Your task to perform on an android device: Open Youtube and go to "Your channel" Image 0: 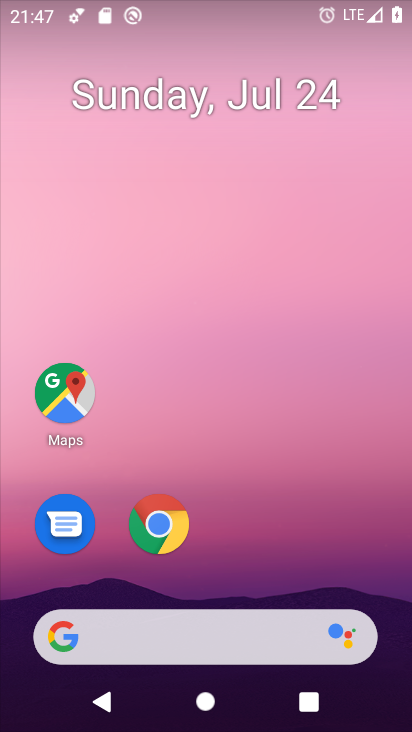
Step 0: drag from (289, 558) to (311, 48)
Your task to perform on an android device: Open Youtube and go to "Your channel" Image 1: 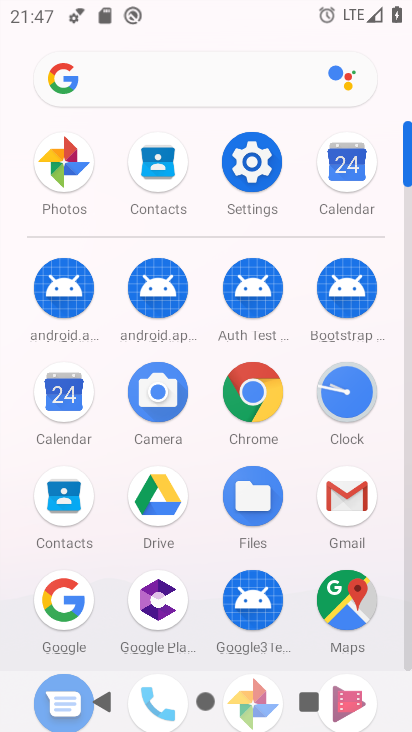
Step 1: drag from (216, 407) to (218, 33)
Your task to perform on an android device: Open Youtube and go to "Your channel" Image 2: 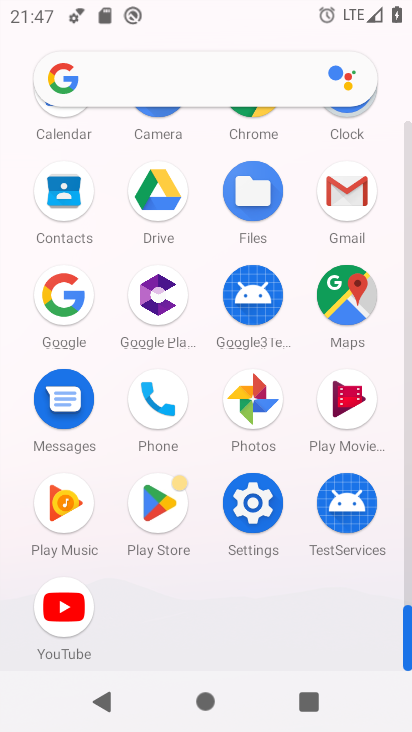
Step 2: click (58, 612)
Your task to perform on an android device: Open Youtube and go to "Your channel" Image 3: 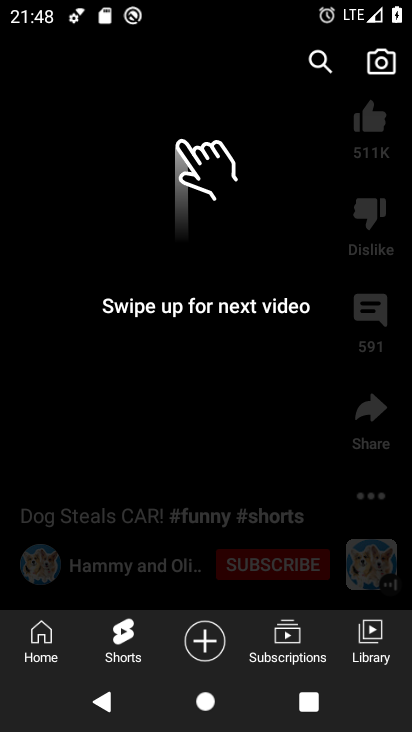
Step 3: press back button
Your task to perform on an android device: Open Youtube and go to "Your channel" Image 4: 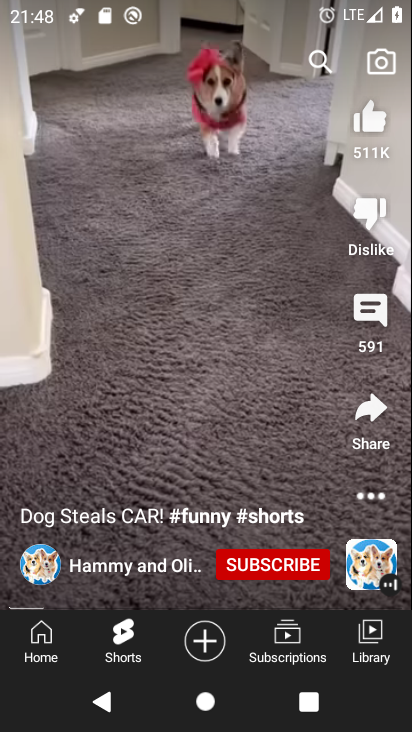
Step 4: press back button
Your task to perform on an android device: Open Youtube and go to "Your channel" Image 5: 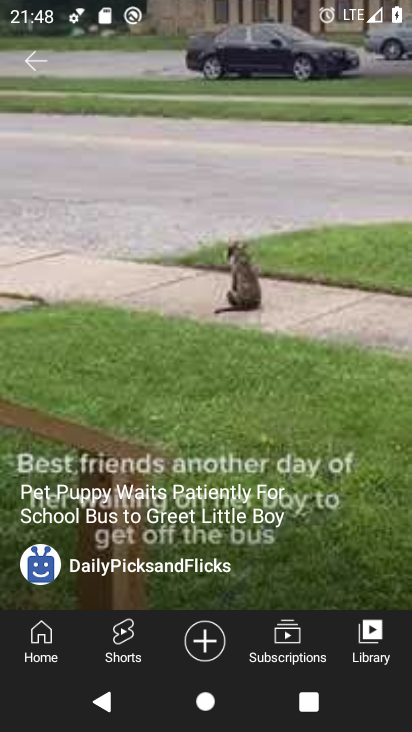
Step 5: press back button
Your task to perform on an android device: Open Youtube and go to "Your channel" Image 6: 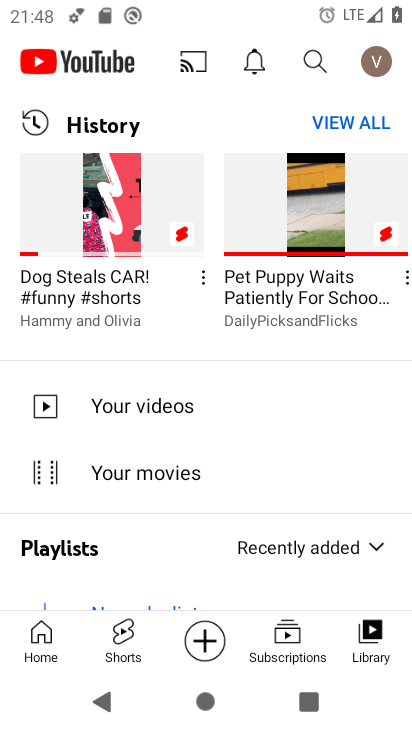
Step 6: click (373, 61)
Your task to perform on an android device: Open Youtube and go to "Your channel" Image 7: 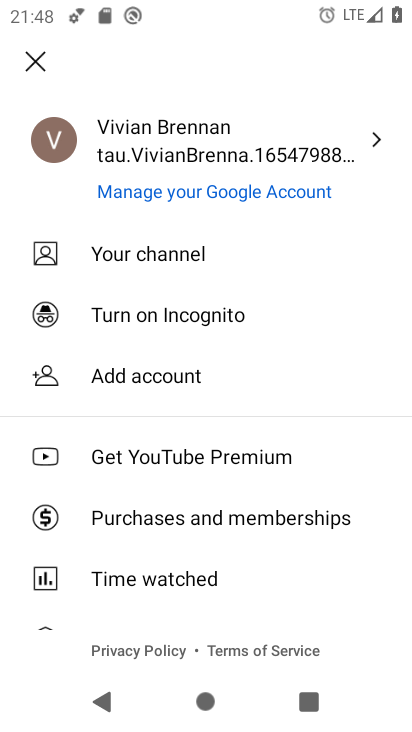
Step 7: click (183, 258)
Your task to perform on an android device: Open Youtube and go to "Your channel" Image 8: 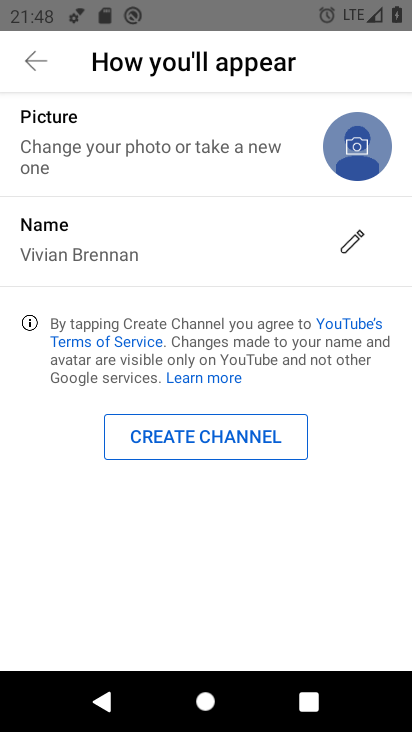
Step 8: task complete